Your task to perform on an android device: Go to Wikipedia Image 0: 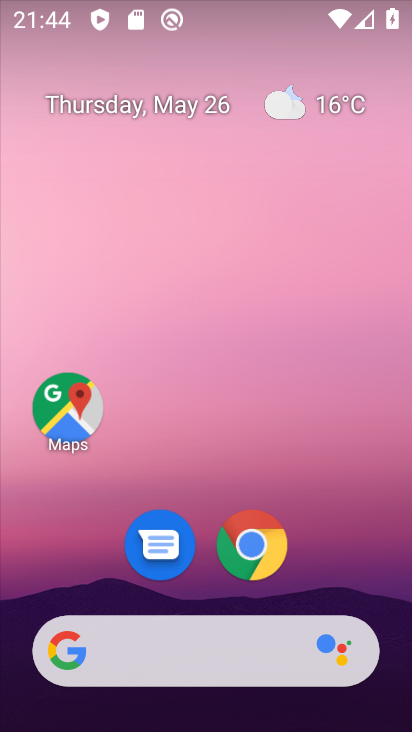
Step 0: click (252, 554)
Your task to perform on an android device: Go to Wikipedia Image 1: 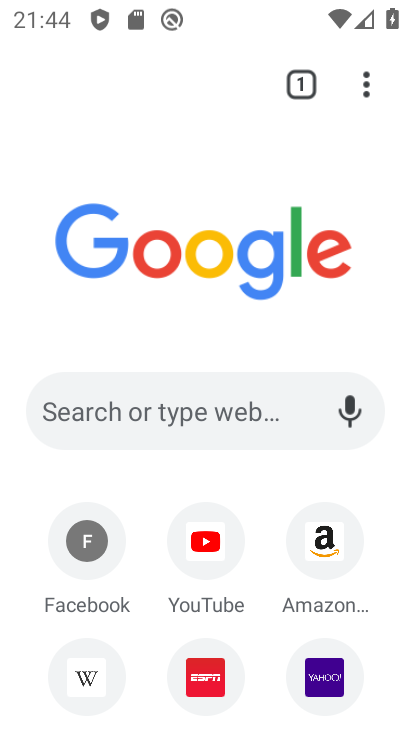
Step 1: click (79, 678)
Your task to perform on an android device: Go to Wikipedia Image 2: 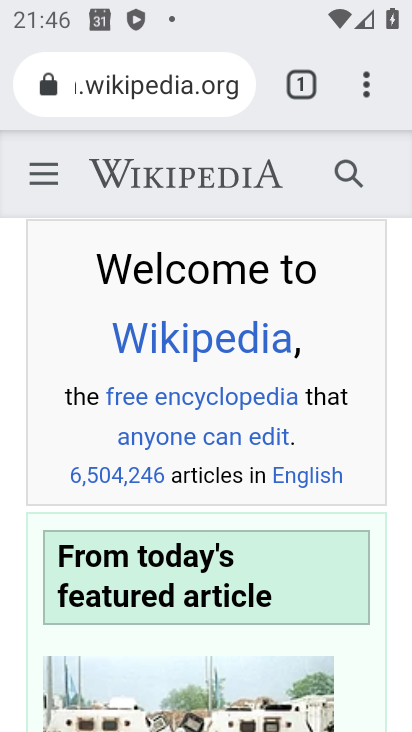
Step 2: task complete